Your task to perform on an android device: read, delete, or share a saved page in the chrome app Image 0: 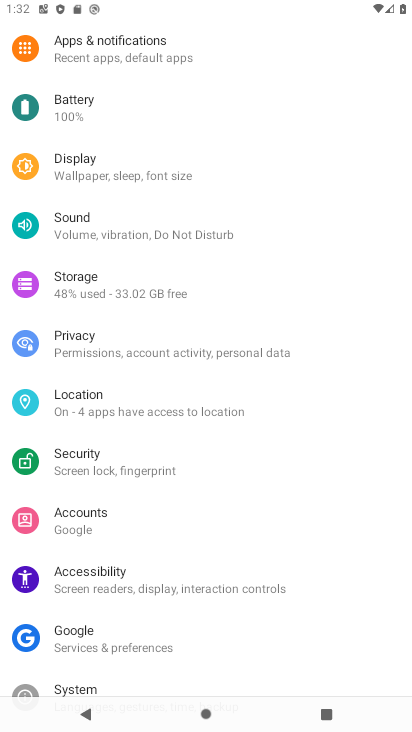
Step 0: press home button
Your task to perform on an android device: read, delete, or share a saved page in the chrome app Image 1: 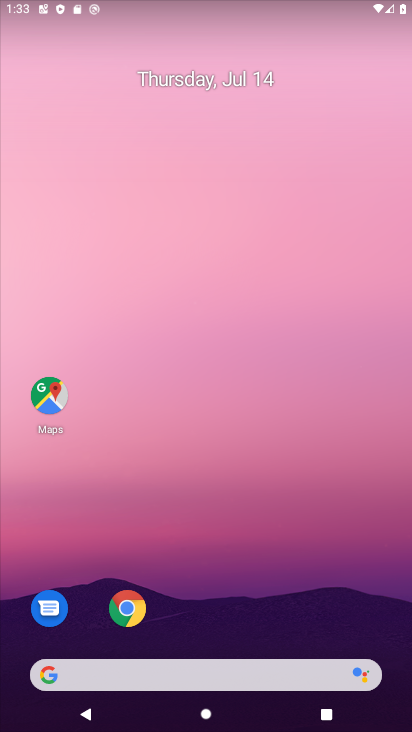
Step 1: drag from (305, 594) to (290, 97)
Your task to perform on an android device: read, delete, or share a saved page in the chrome app Image 2: 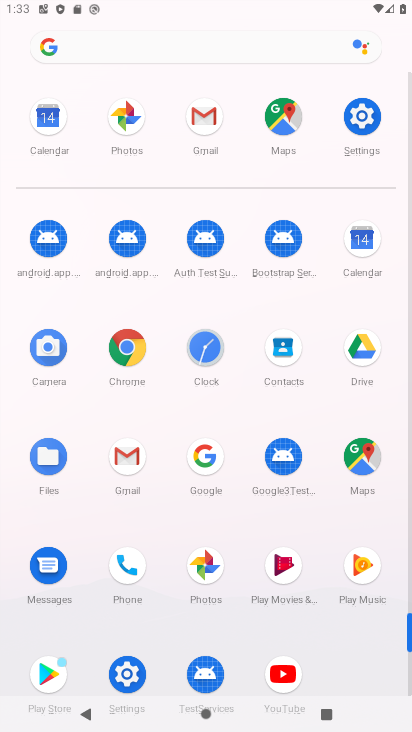
Step 2: click (124, 350)
Your task to perform on an android device: read, delete, or share a saved page in the chrome app Image 3: 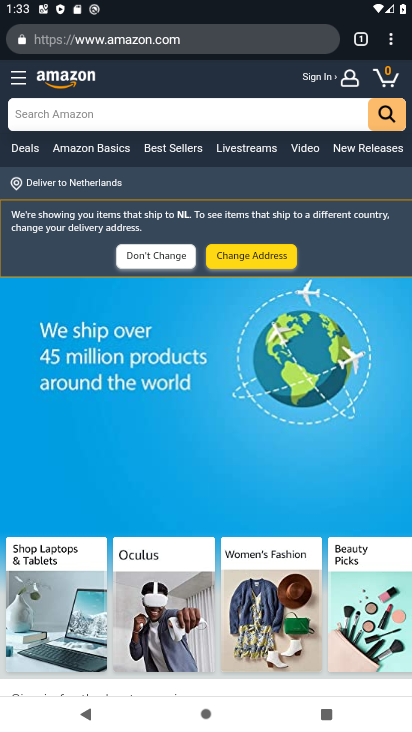
Step 3: click (393, 41)
Your task to perform on an android device: read, delete, or share a saved page in the chrome app Image 4: 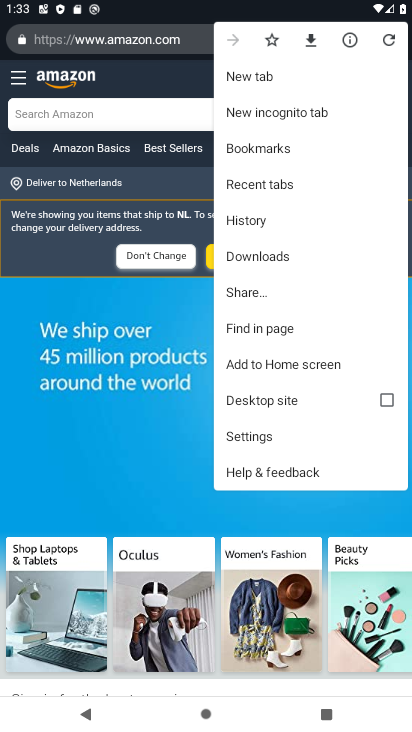
Step 4: click (254, 254)
Your task to perform on an android device: read, delete, or share a saved page in the chrome app Image 5: 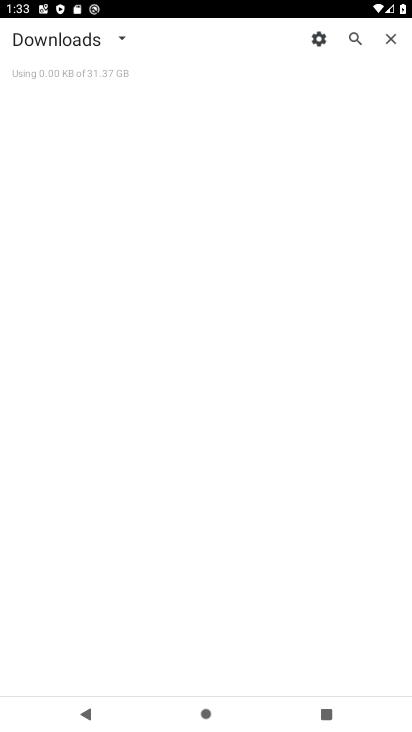
Step 5: click (122, 41)
Your task to perform on an android device: read, delete, or share a saved page in the chrome app Image 6: 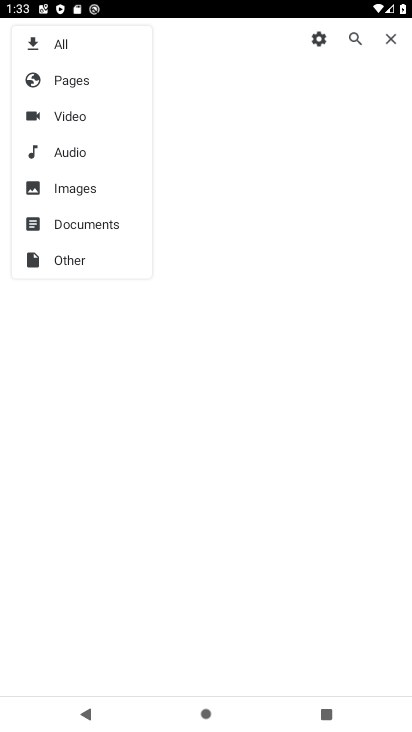
Step 6: click (65, 88)
Your task to perform on an android device: read, delete, or share a saved page in the chrome app Image 7: 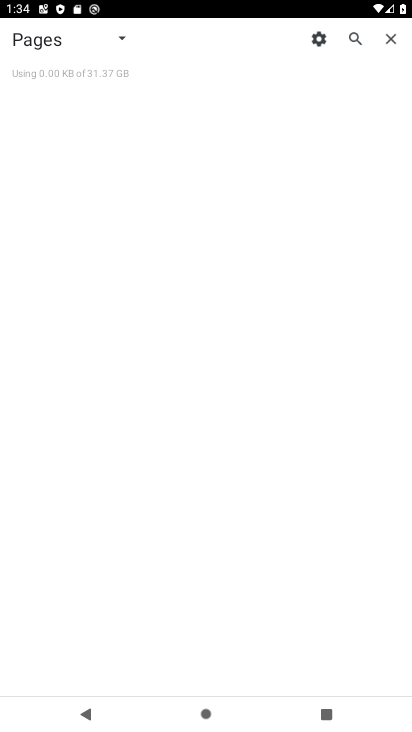
Step 7: task complete